Your task to perform on an android device: turn off smart reply in the gmail app Image 0: 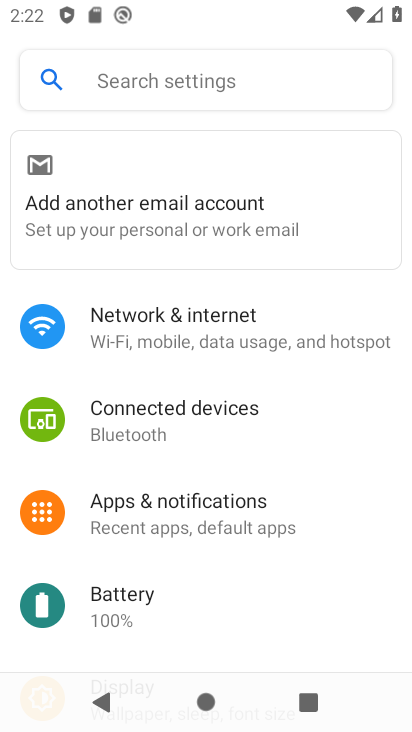
Step 0: press home button
Your task to perform on an android device: turn off smart reply in the gmail app Image 1: 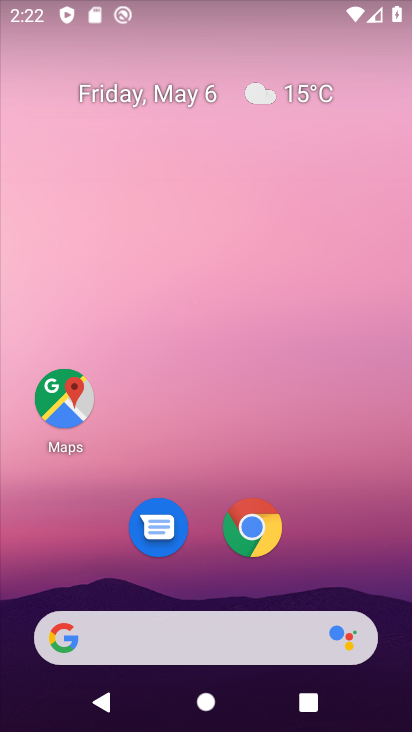
Step 1: drag from (160, 557) to (186, 302)
Your task to perform on an android device: turn off smart reply in the gmail app Image 2: 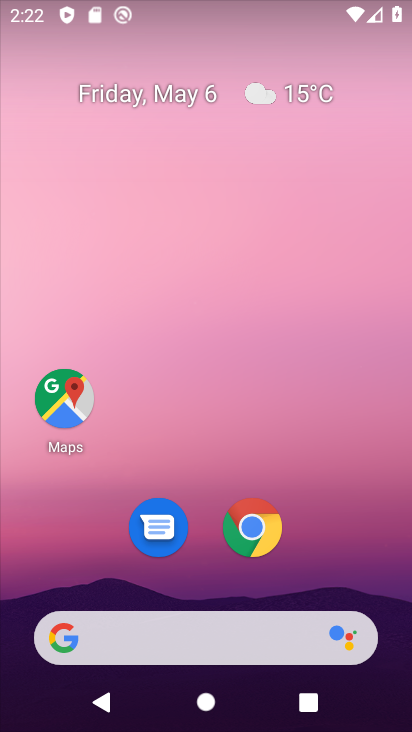
Step 2: drag from (227, 598) to (260, 234)
Your task to perform on an android device: turn off smart reply in the gmail app Image 3: 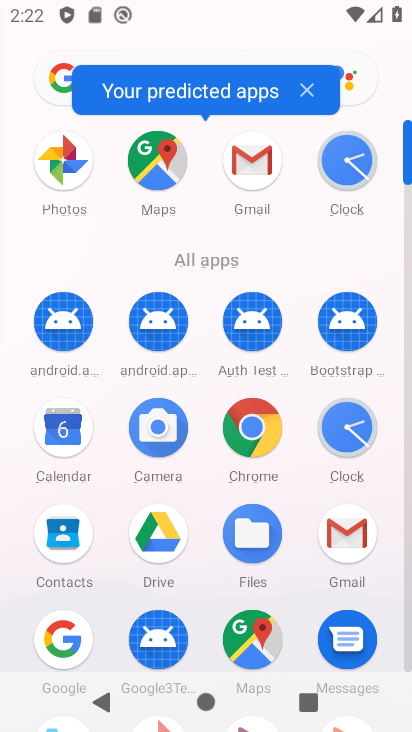
Step 3: drag from (196, 609) to (196, 370)
Your task to perform on an android device: turn off smart reply in the gmail app Image 4: 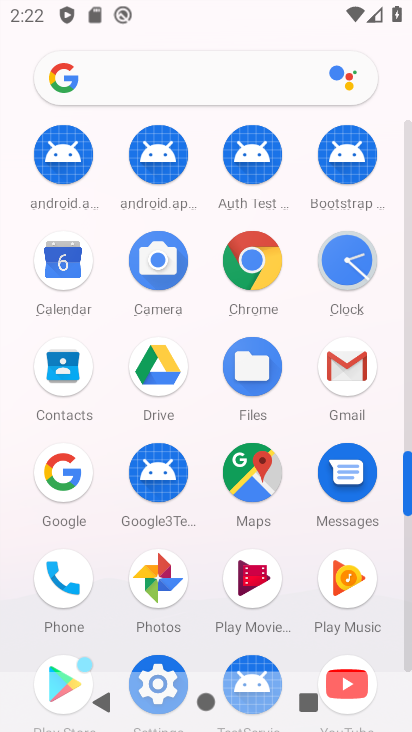
Step 4: click (354, 369)
Your task to perform on an android device: turn off smart reply in the gmail app Image 5: 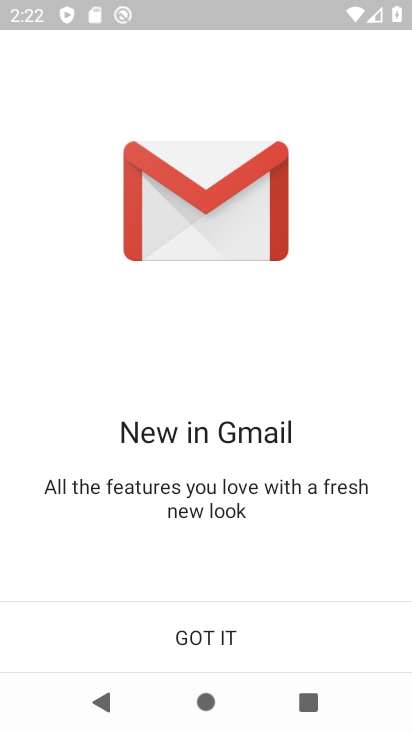
Step 5: click (219, 627)
Your task to perform on an android device: turn off smart reply in the gmail app Image 6: 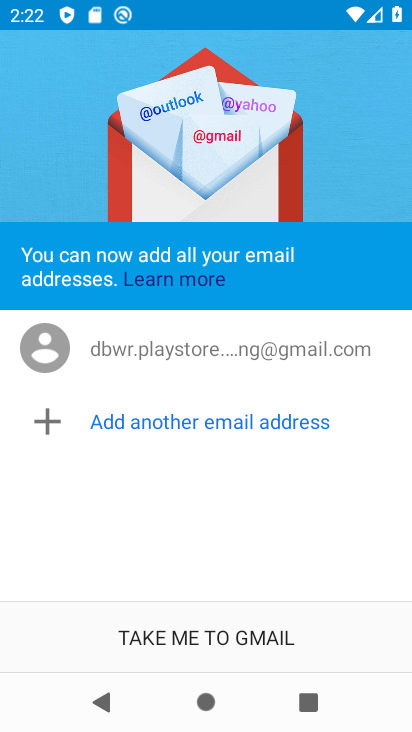
Step 6: click (245, 645)
Your task to perform on an android device: turn off smart reply in the gmail app Image 7: 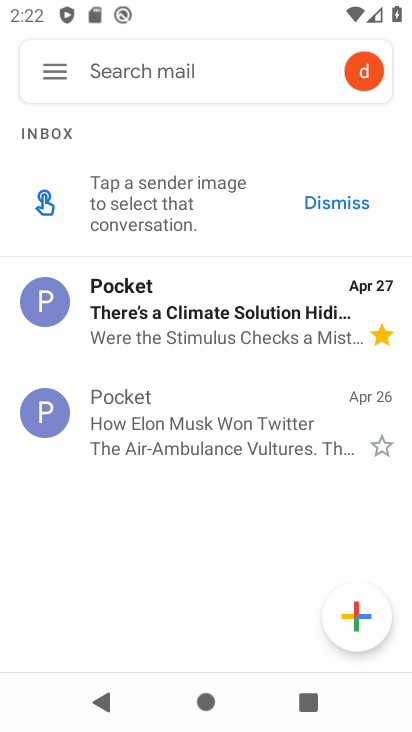
Step 7: click (47, 78)
Your task to perform on an android device: turn off smart reply in the gmail app Image 8: 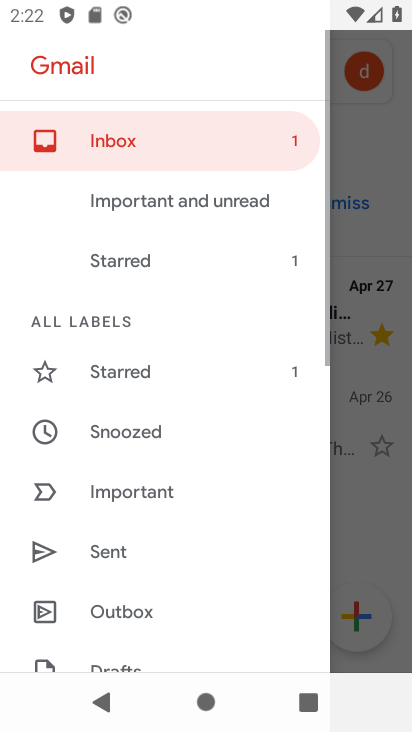
Step 8: drag from (65, 606) to (104, 289)
Your task to perform on an android device: turn off smart reply in the gmail app Image 9: 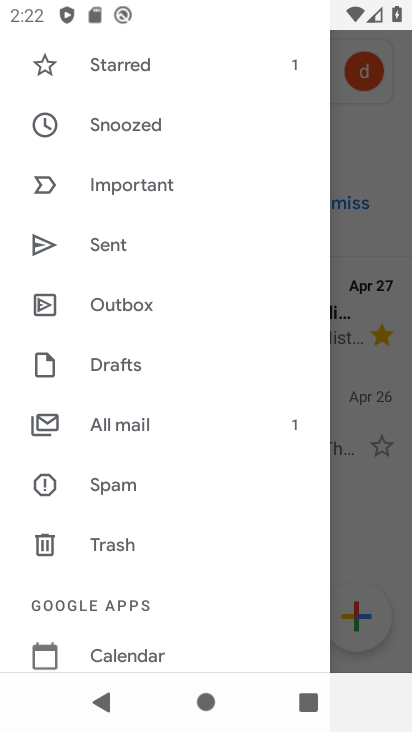
Step 9: drag from (151, 649) to (162, 321)
Your task to perform on an android device: turn off smart reply in the gmail app Image 10: 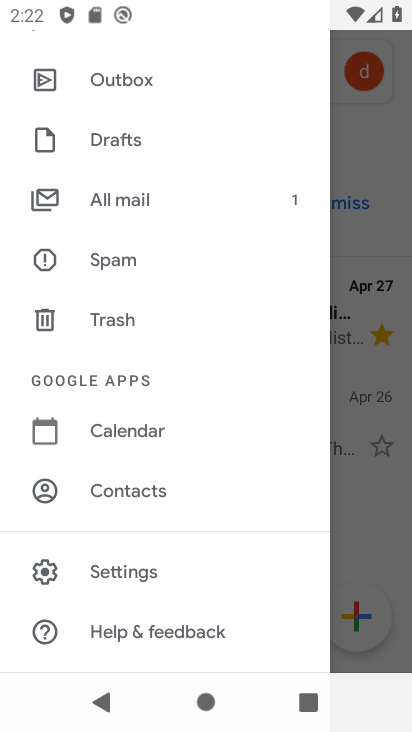
Step 10: click (124, 581)
Your task to perform on an android device: turn off smart reply in the gmail app Image 11: 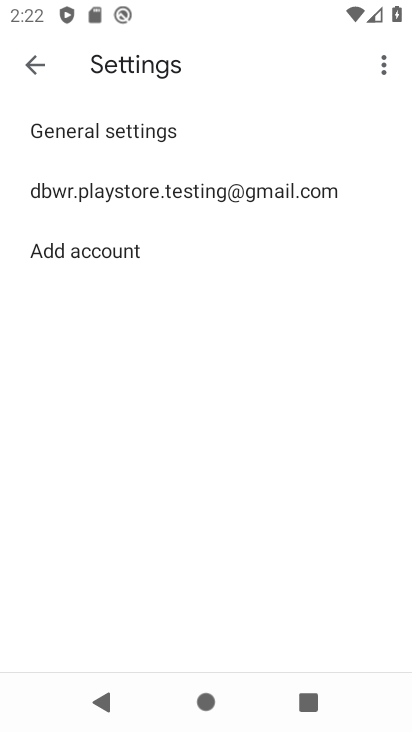
Step 11: click (158, 196)
Your task to perform on an android device: turn off smart reply in the gmail app Image 12: 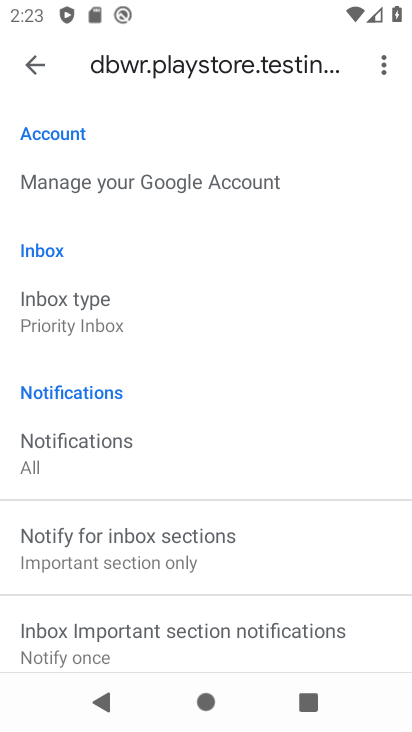
Step 12: drag from (101, 521) to (105, 308)
Your task to perform on an android device: turn off smart reply in the gmail app Image 13: 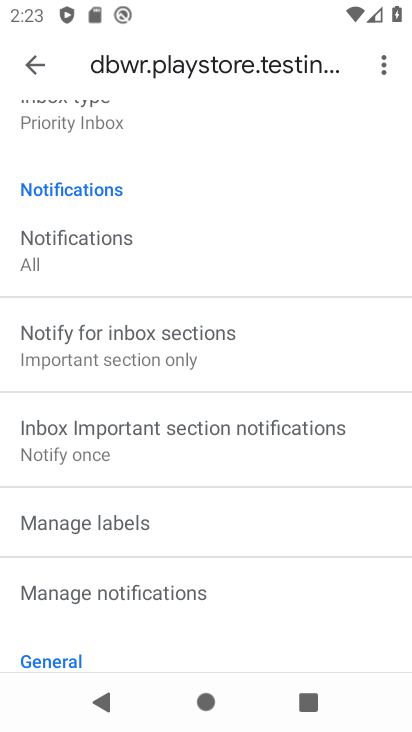
Step 13: drag from (237, 612) to (250, 354)
Your task to perform on an android device: turn off smart reply in the gmail app Image 14: 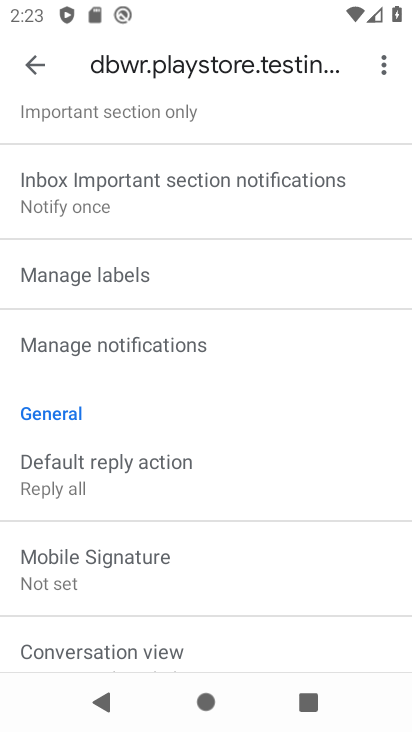
Step 14: drag from (230, 584) to (241, 303)
Your task to perform on an android device: turn off smart reply in the gmail app Image 15: 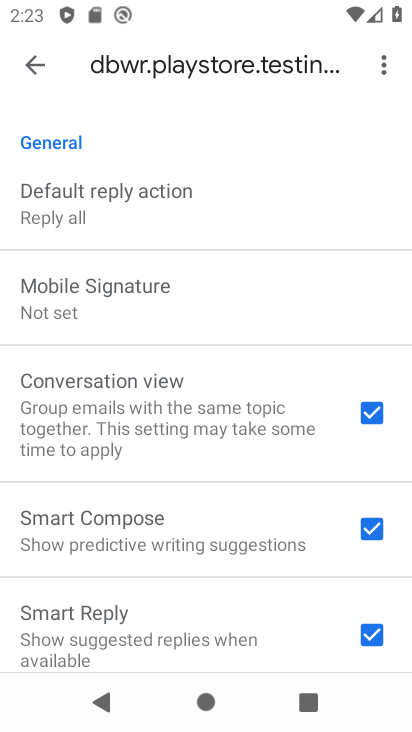
Step 15: drag from (176, 567) to (200, 369)
Your task to perform on an android device: turn off smart reply in the gmail app Image 16: 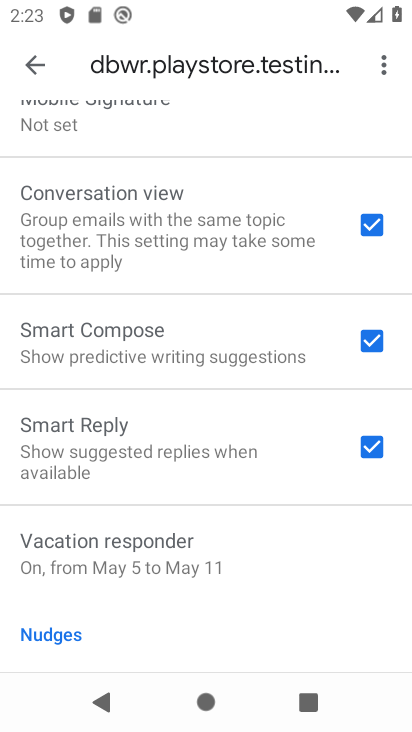
Step 16: click (369, 599)
Your task to perform on an android device: turn off smart reply in the gmail app Image 17: 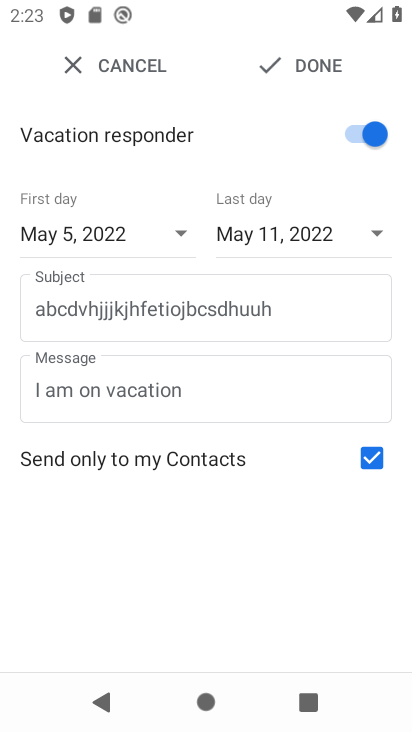
Step 17: task complete